Your task to perform on an android device: empty trash in the gmail app Image 0: 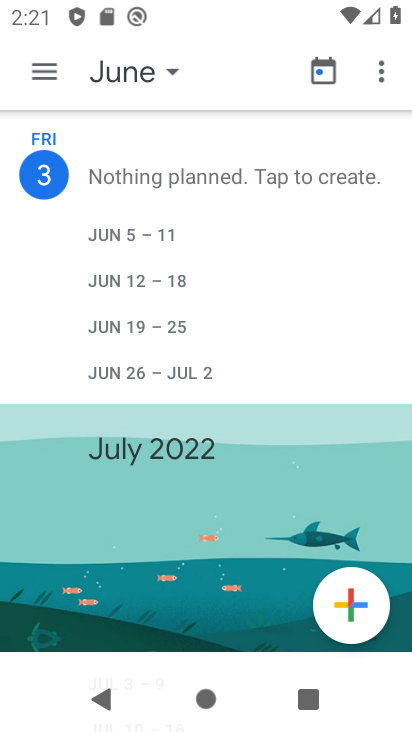
Step 0: press home button
Your task to perform on an android device: empty trash in the gmail app Image 1: 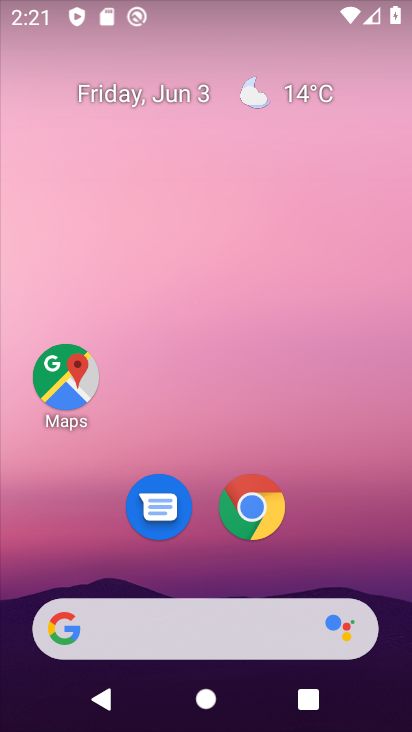
Step 1: drag from (324, 529) to (257, 74)
Your task to perform on an android device: empty trash in the gmail app Image 2: 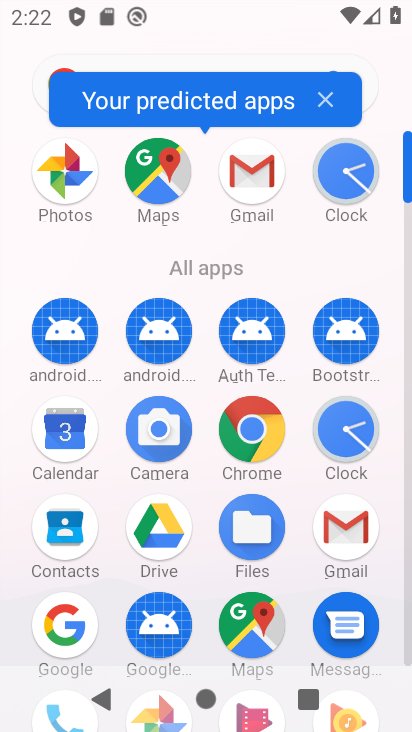
Step 2: click (253, 171)
Your task to perform on an android device: empty trash in the gmail app Image 3: 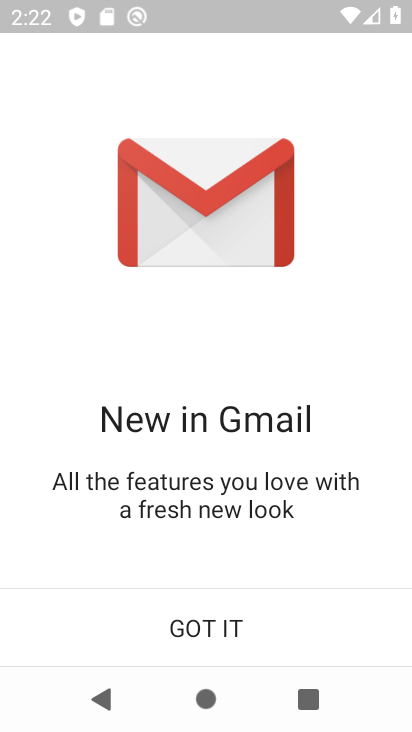
Step 3: click (221, 626)
Your task to perform on an android device: empty trash in the gmail app Image 4: 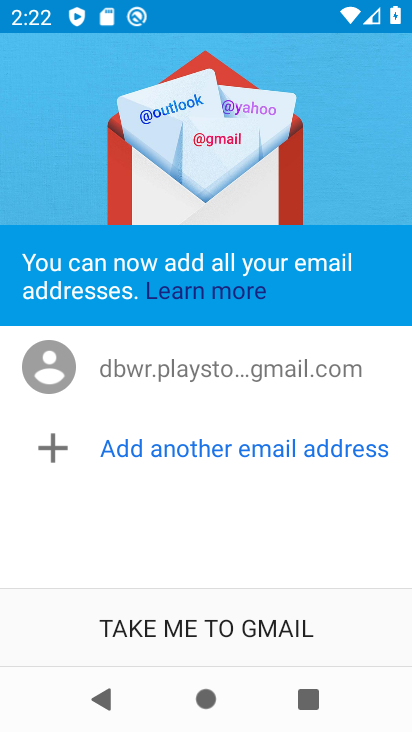
Step 4: click (221, 626)
Your task to perform on an android device: empty trash in the gmail app Image 5: 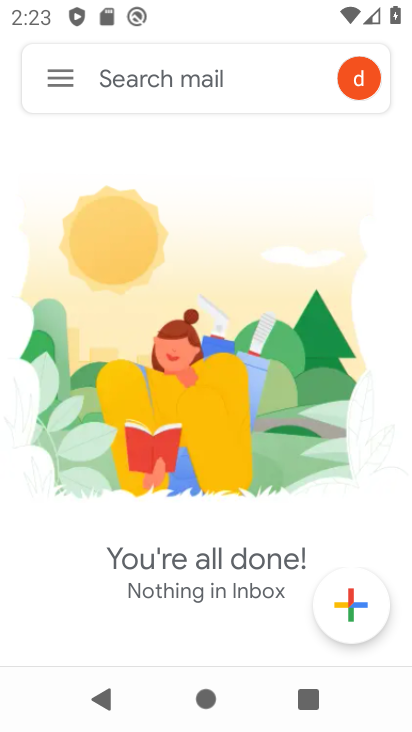
Step 5: click (72, 78)
Your task to perform on an android device: empty trash in the gmail app Image 6: 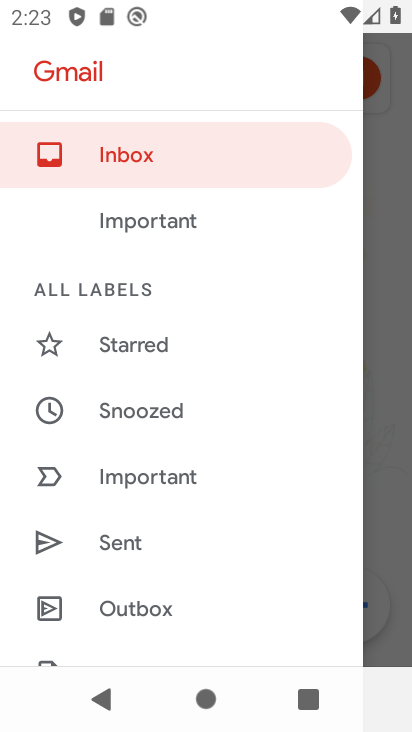
Step 6: drag from (154, 453) to (252, 279)
Your task to perform on an android device: empty trash in the gmail app Image 7: 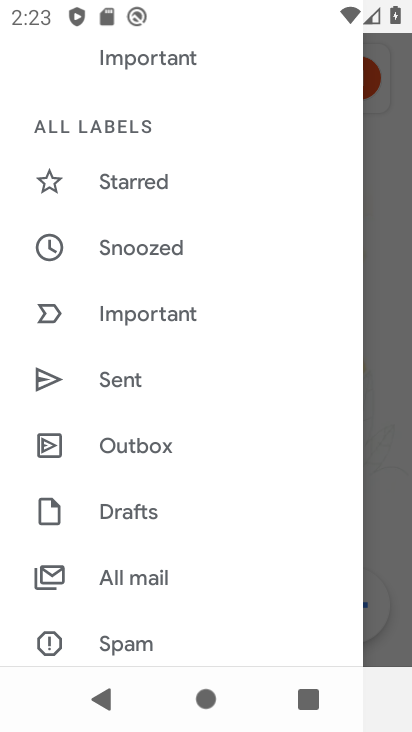
Step 7: drag from (133, 543) to (229, 422)
Your task to perform on an android device: empty trash in the gmail app Image 8: 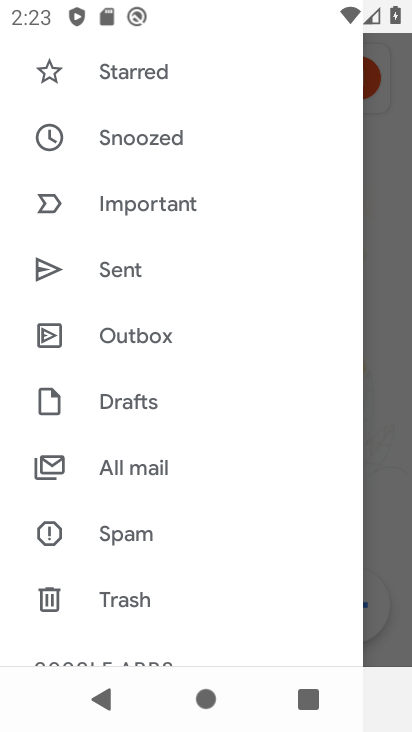
Step 8: drag from (127, 507) to (190, 420)
Your task to perform on an android device: empty trash in the gmail app Image 9: 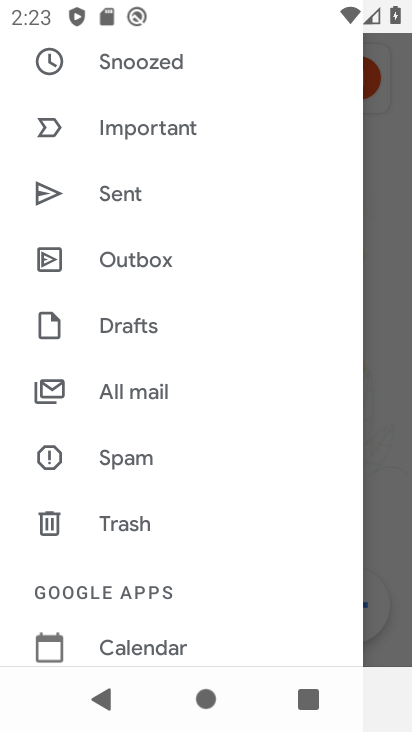
Step 9: drag from (119, 559) to (212, 447)
Your task to perform on an android device: empty trash in the gmail app Image 10: 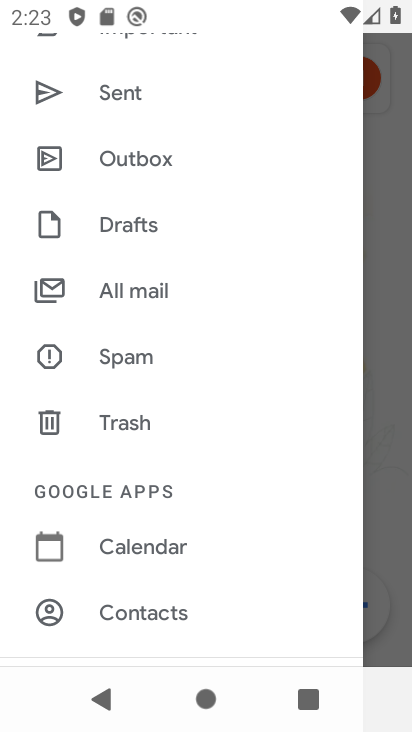
Step 10: click (147, 424)
Your task to perform on an android device: empty trash in the gmail app Image 11: 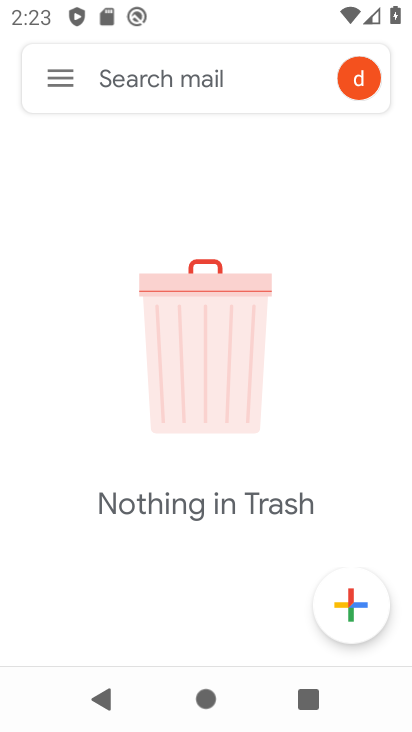
Step 11: task complete